Your task to perform on an android device: Open battery settings Image 0: 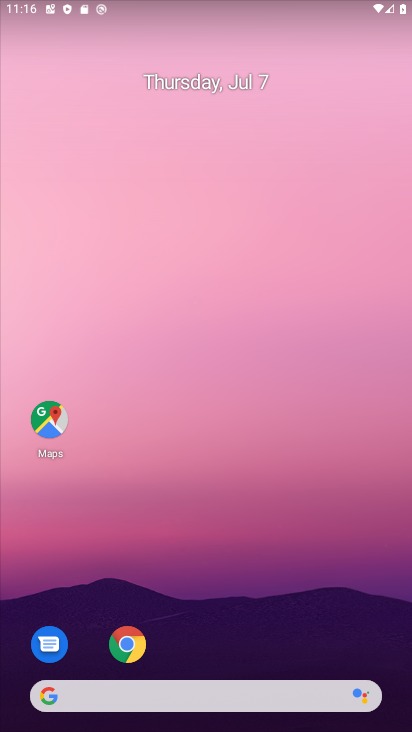
Step 0: drag from (174, 695) to (291, 3)
Your task to perform on an android device: Open battery settings Image 1: 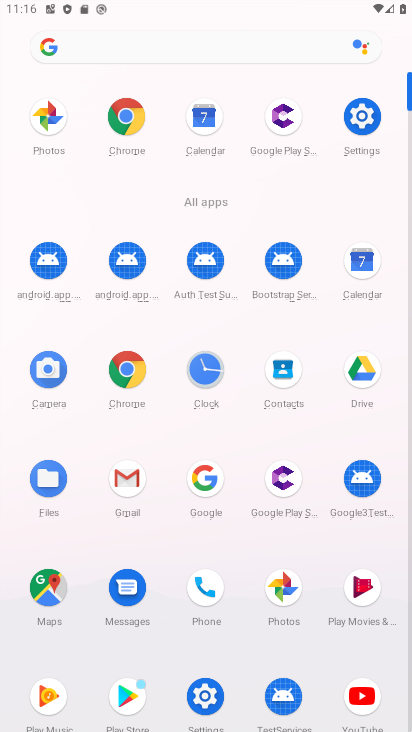
Step 1: click (347, 120)
Your task to perform on an android device: Open battery settings Image 2: 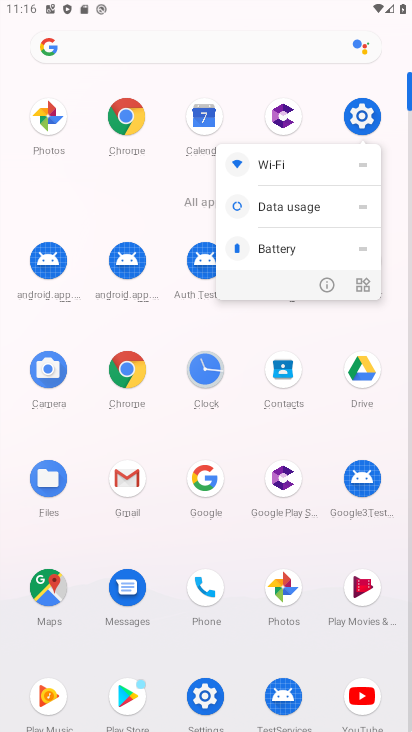
Step 2: click (324, 278)
Your task to perform on an android device: Open battery settings Image 3: 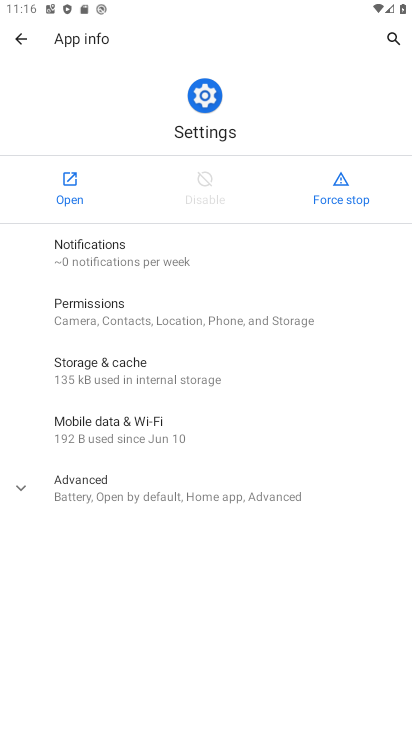
Step 3: click (64, 184)
Your task to perform on an android device: Open battery settings Image 4: 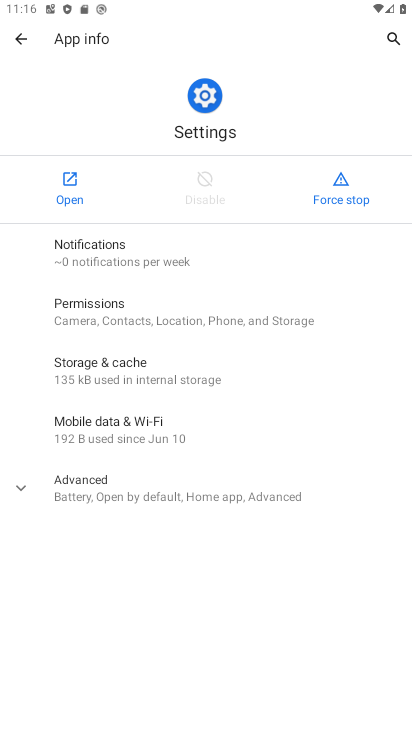
Step 4: click (63, 184)
Your task to perform on an android device: Open battery settings Image 5: 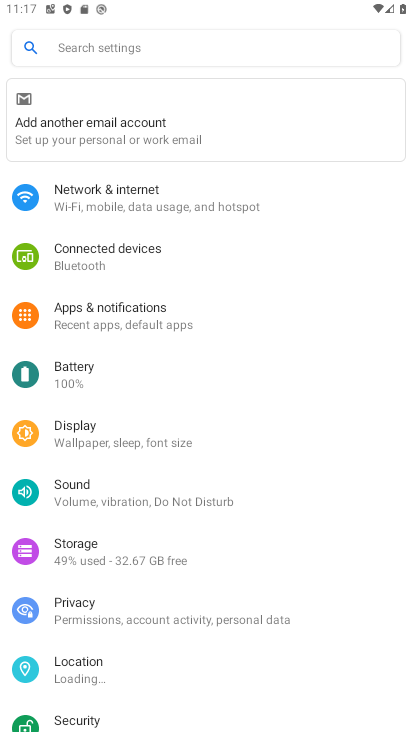
Step 5: click (76, 367)
Your task to perform on an android device: Open battery settings Image 6: 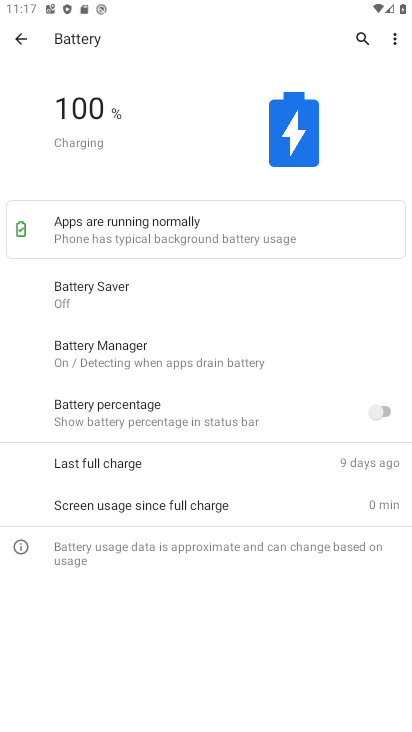
Step 6: task complete